Your task to perform on an android device: Open the Play Movies app and select the watchlist tab. Image 0: 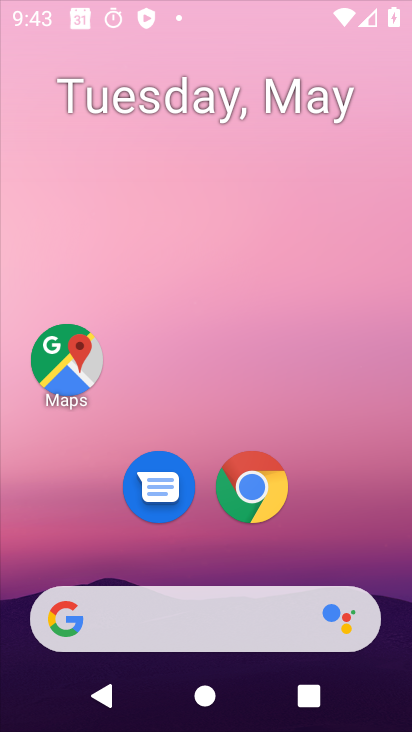
Step 0: drag from (224, 594) to (258, 111)
Your task to perform on an android device: Open the Play Movies app and select the watchlist tab. Image 1: 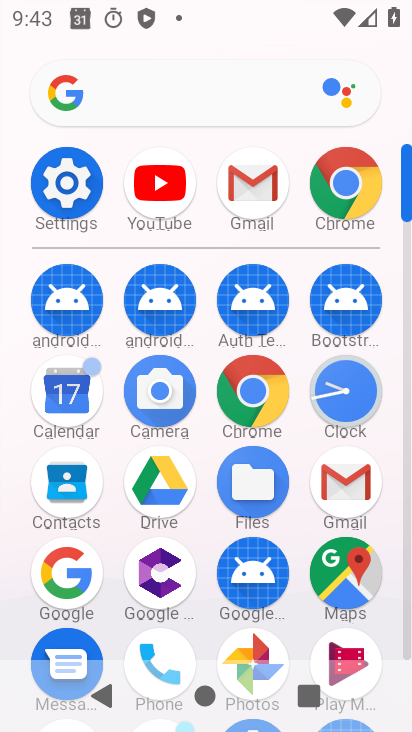
Step 1: click (358, 637)
Your task to perform on an android device: Open the Play Movies app and select the watchlist tab. Image 2: 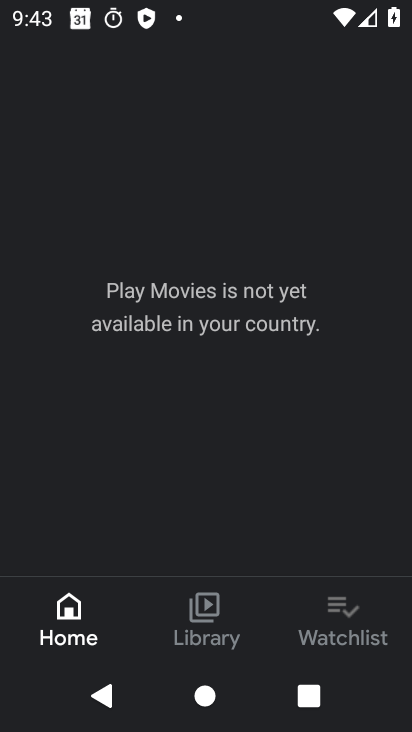
Step 2: click (357, 612)
Your task to perform on an android device: Open the Play Movies app and select the watchlist tab. Image 3: 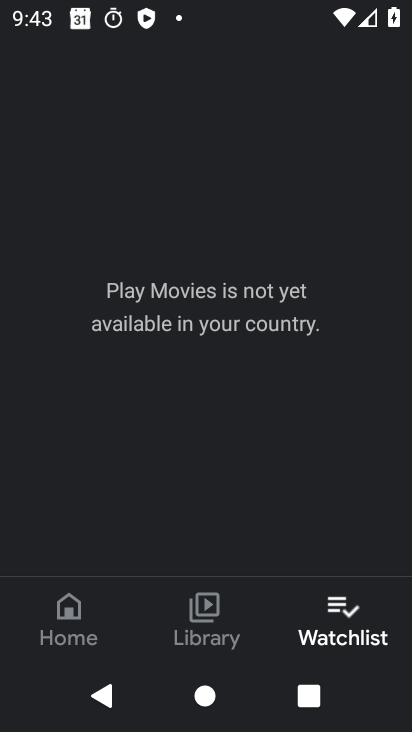
Step 3: task complete